Your task to perform on an android device: open app "AliExpress" (install if not already installed) and go to login screen Image 0: 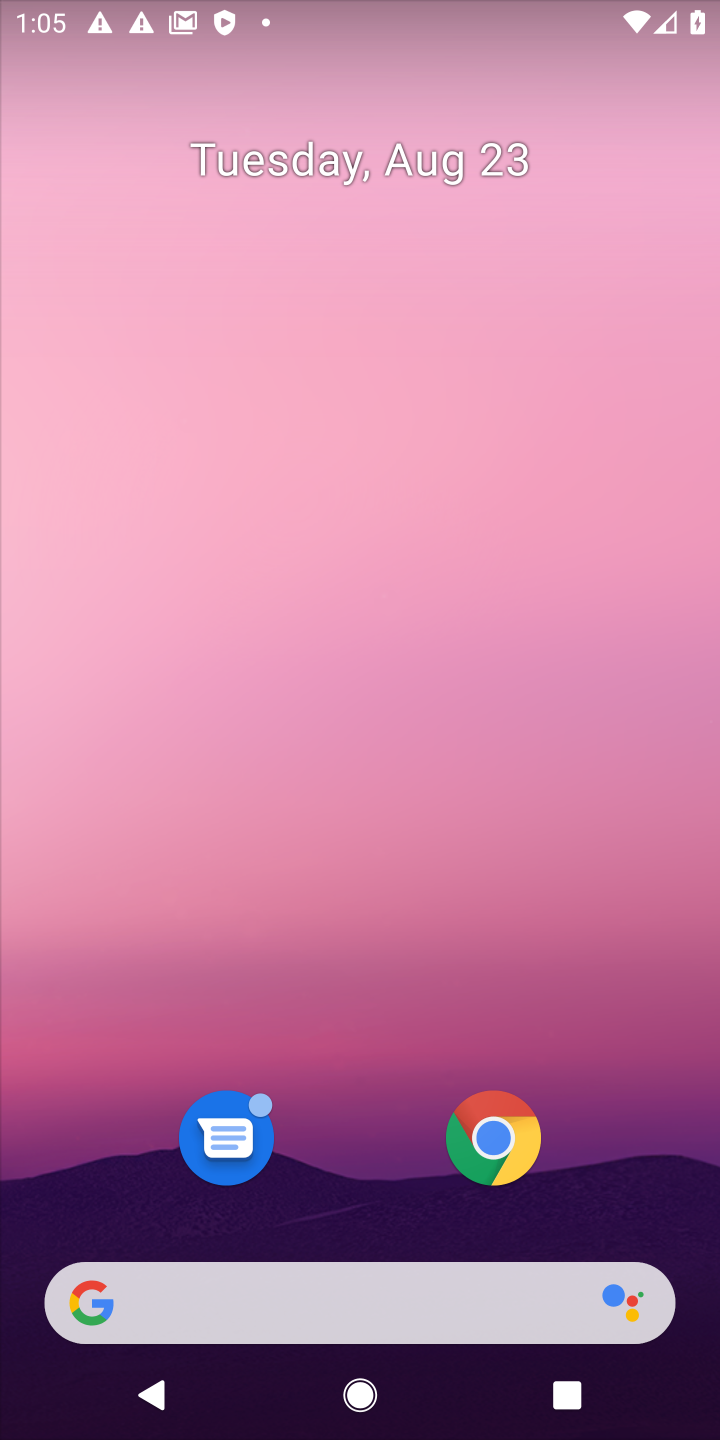
Step 0: drag from (383, 1242) to (434, 23)
Your task to perform on an android device: open app "AliExpress" (install if not already installed) and go to login screen Image 1: 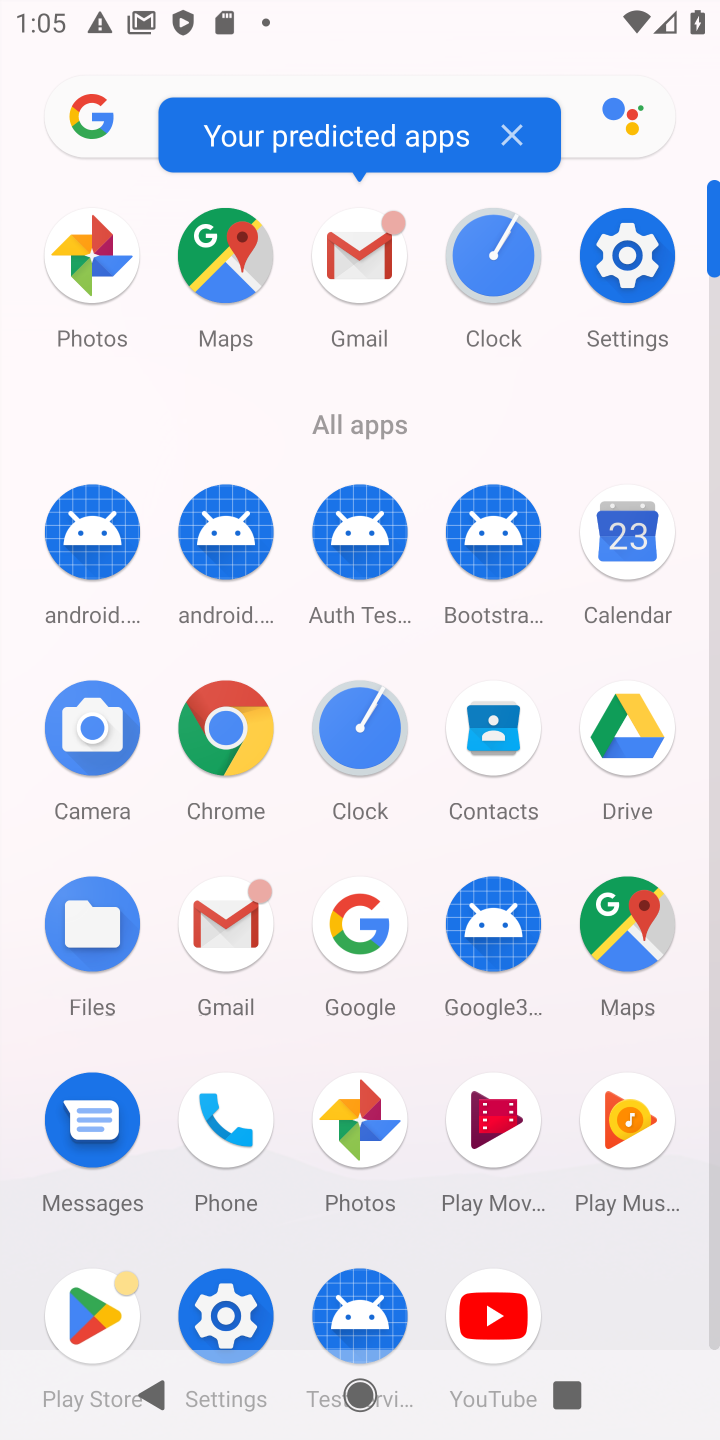
Step 1: click (96, 1324)
Your task to perform on an android device: open app "AliExpress" (install if not already installed) and go to login screen Image 2: 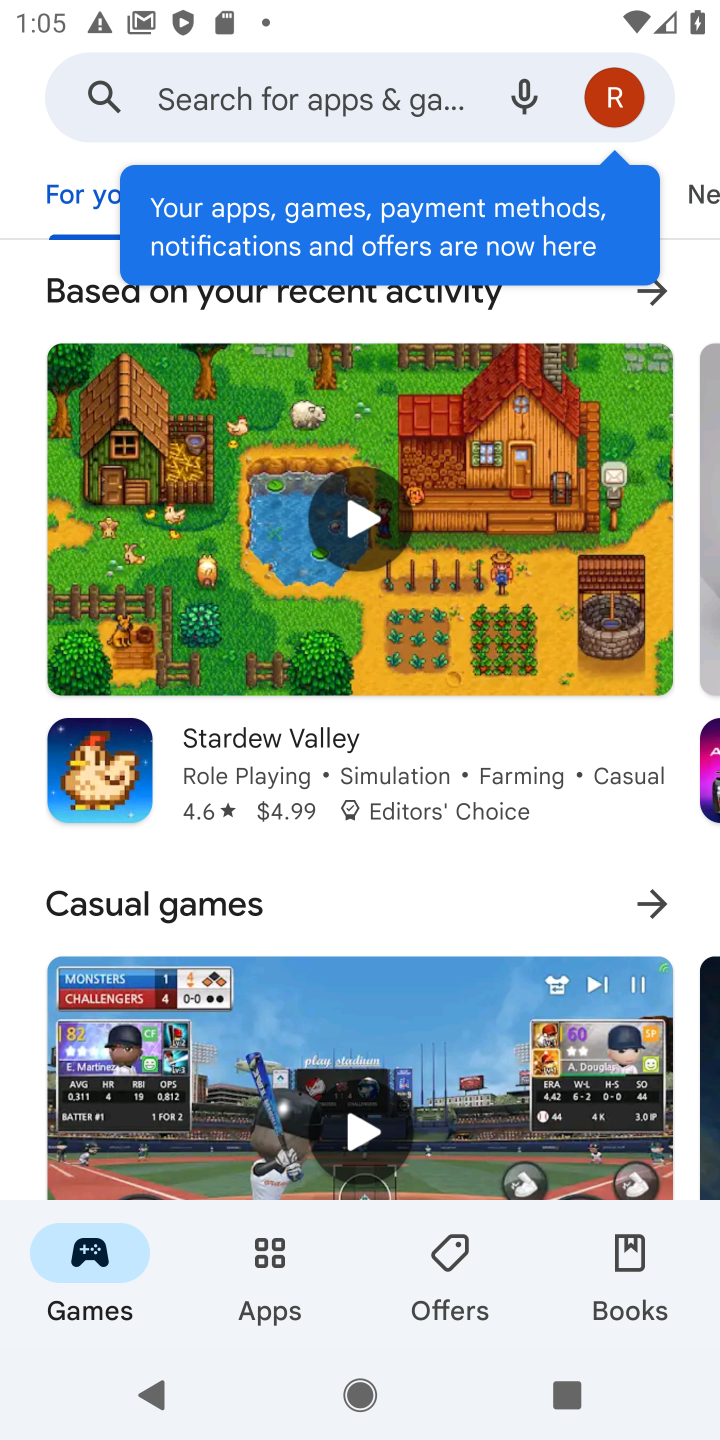
Step 2: click (387, 98)
Your task to perform on an android device: open app "AliExpress" (install if not already installed) and go to login screen Image 3: 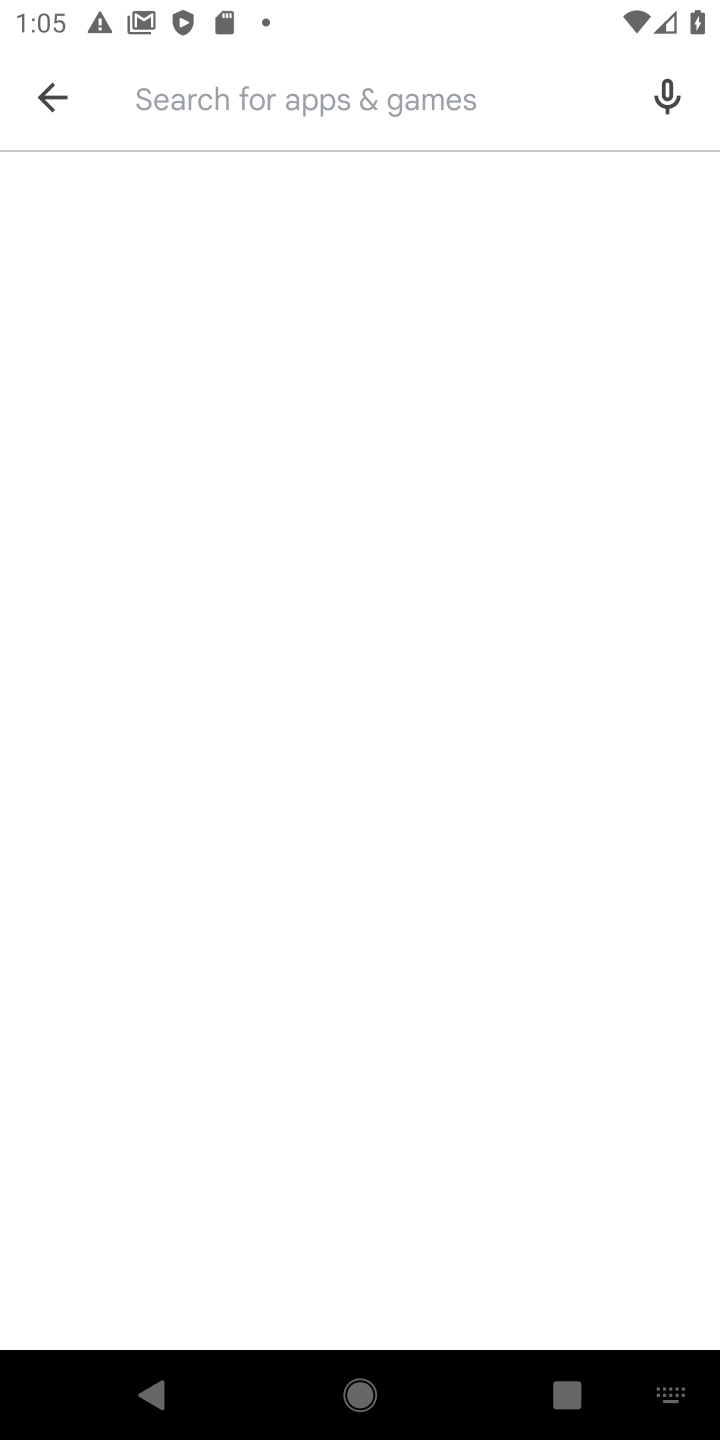
Step 3: type "AliExpress"
Your task to perform on an android device: open app "AliExpress" (install if not already installed) and go to login screen Image 4: 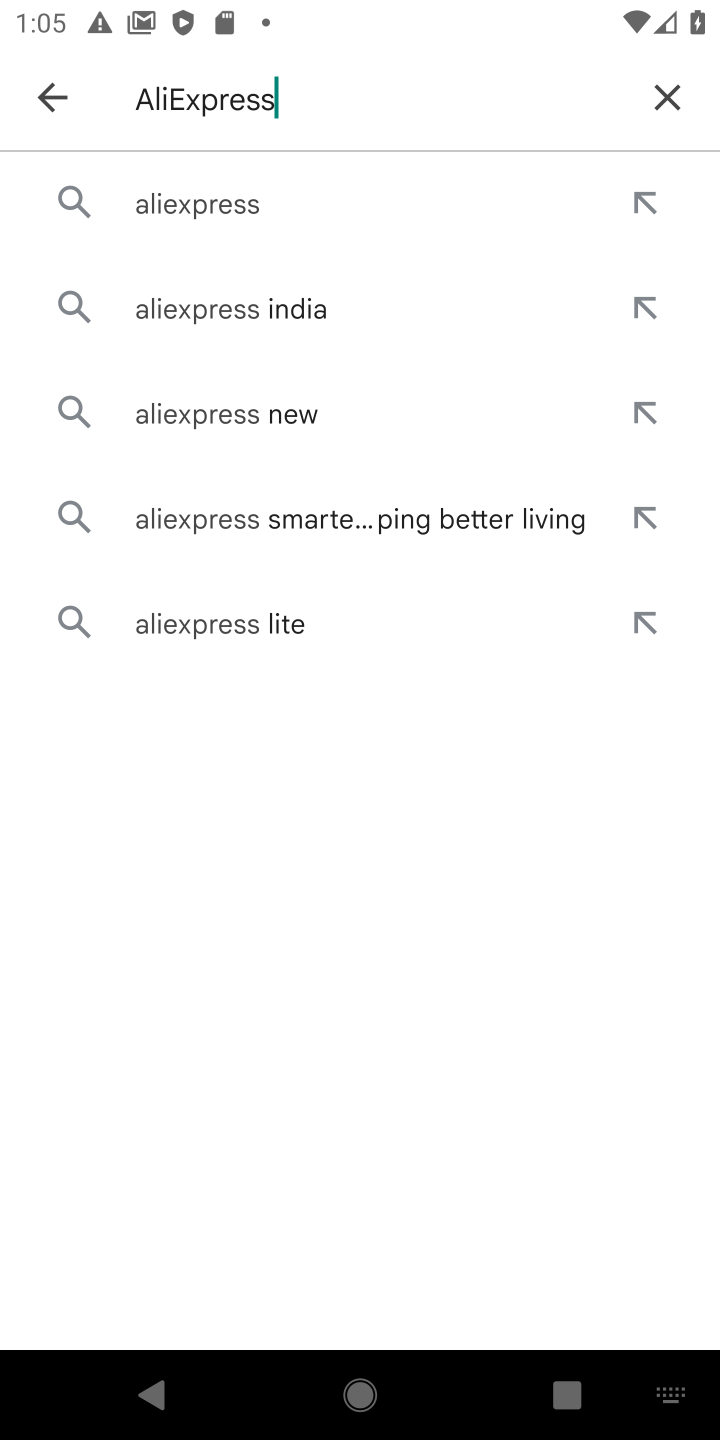
Step 4: click (162, 198)
Your task to perform on an android device: open app "AliExpress" (install if not already installed) and go to login screen Image 5: 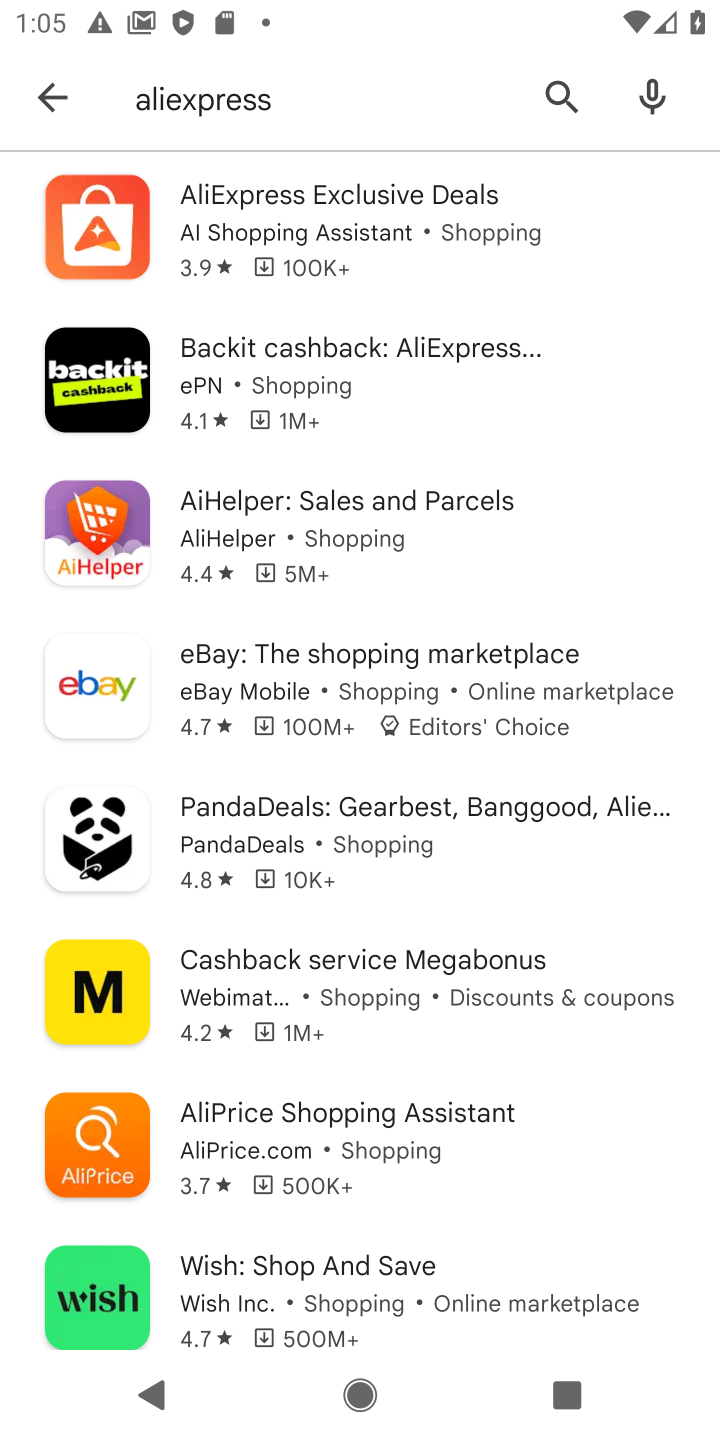
Step 5: task complete